Your task to perform on an android device: turn on sleep mode Image 0: 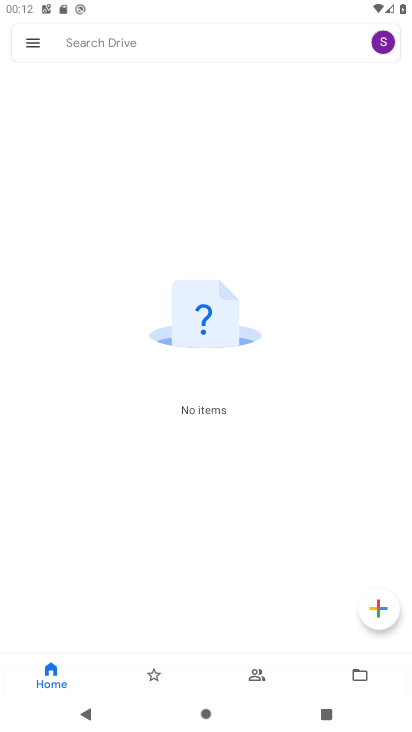
Step 0: press home button
Your task to perform on an android device: turn on sleep mode Image 1: 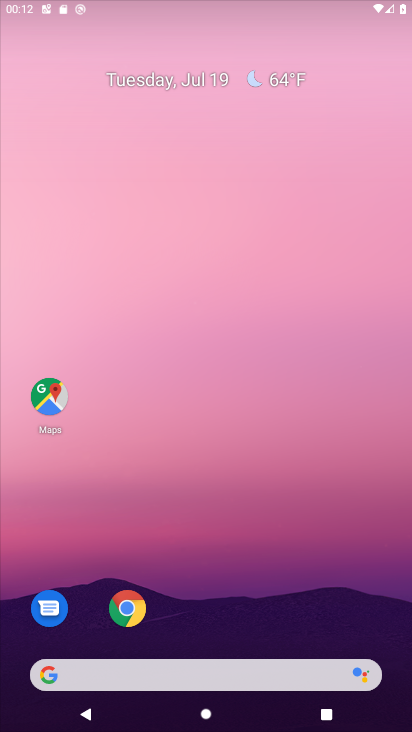
Step 1: drag from (268, 507) to (289, 30)
Your task to perform on an android device: turn on sleep mode Image 2: 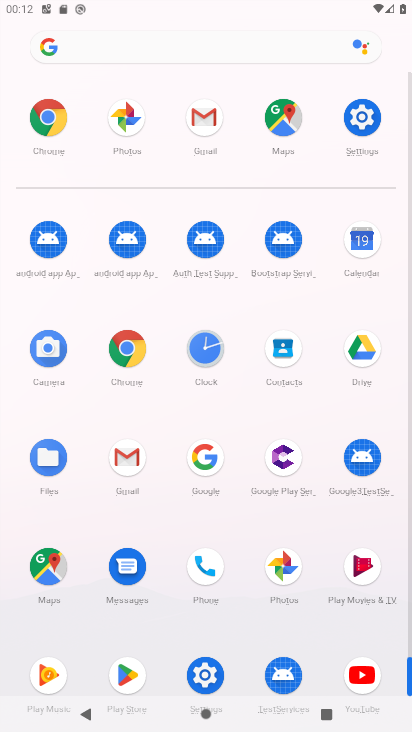
Step 2: click (362, 130)
Your task to perform on an android device: turn on sleep mode Image 3: 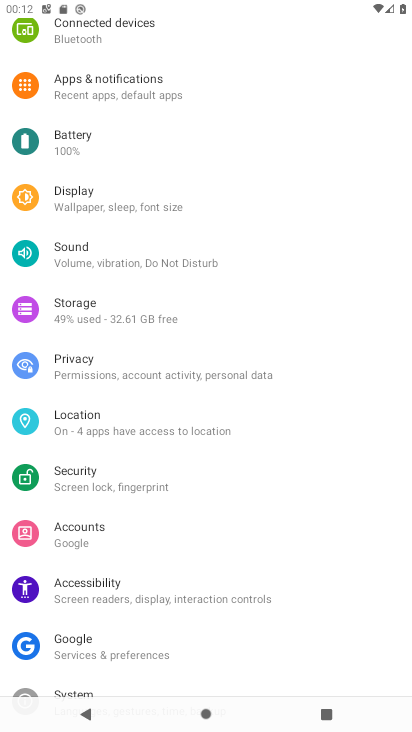
Step 3: task complete